Your task to perform on an android device: Open the Play Movies app and select the watchlist tab. Image 0: 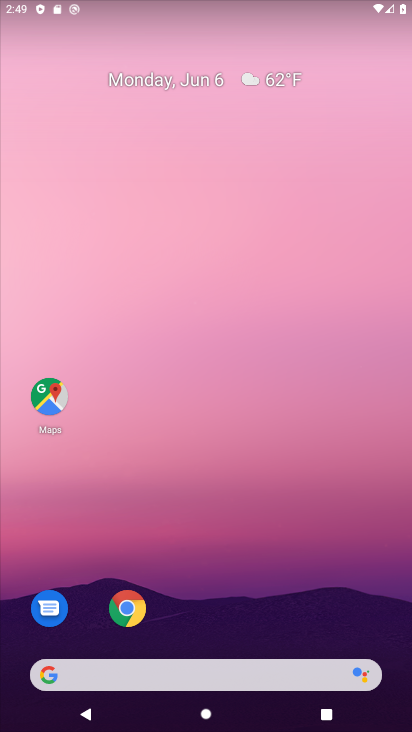
Step 0: drag from (266, 589) to (282, 49)
Your task to perform on an android device: Open the Play Movies app and select the watchlist tab. Image 1: 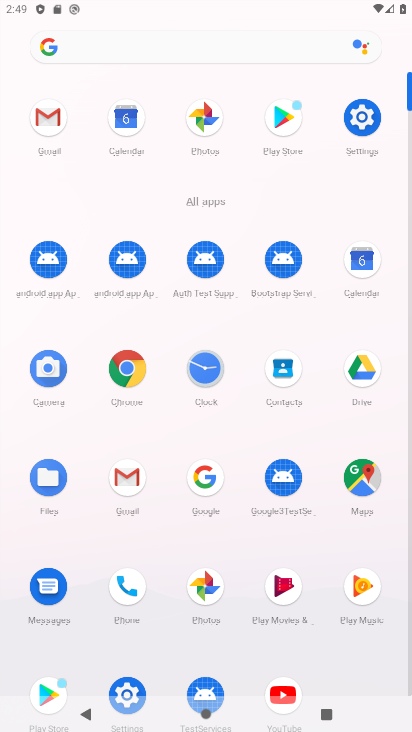
Step 1: click (286, 596)
Your task to perform on an android device: Open the Play Movies app and select the watchlist tab. Image 2: 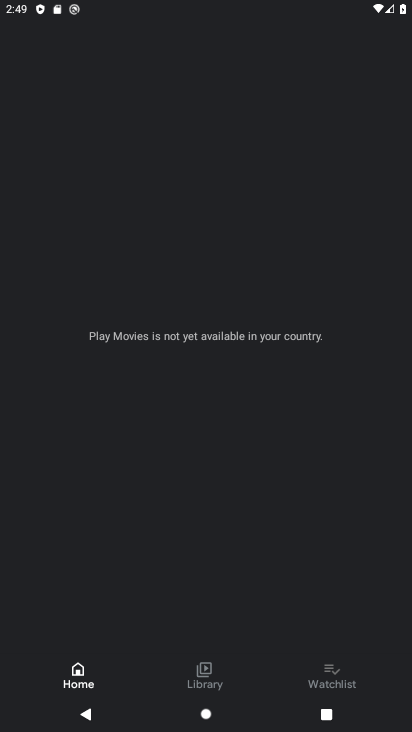
Step 2: click (354, 669)
Your task to perform on an android device: Open the Play Movies app and select the watchlist tab. Image 3: 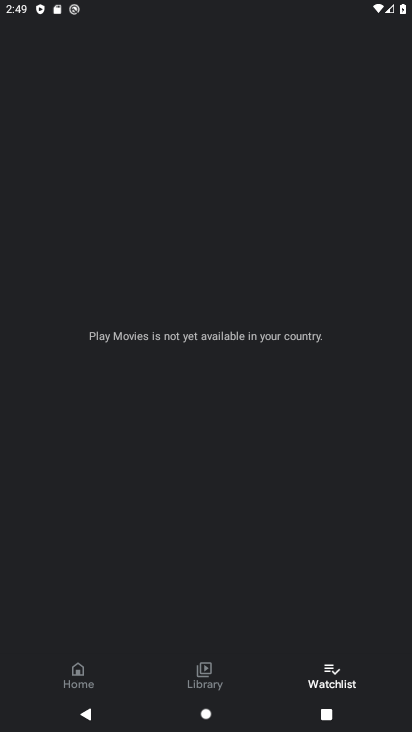
Step 3: task complete